Your task to perform on an android device: Open display settings Image 0: 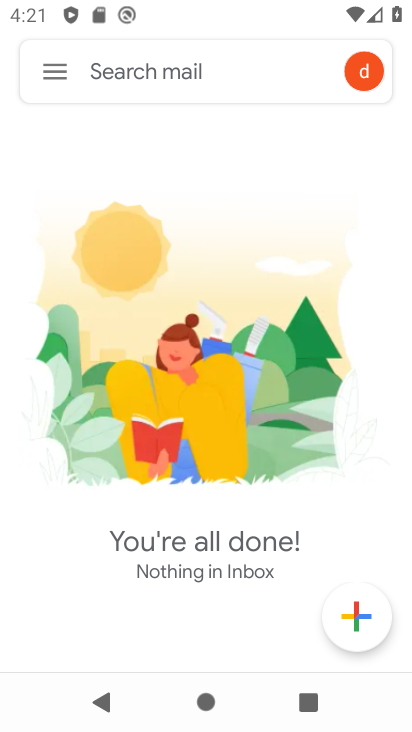
Step 0: press back button
Your task to perform on an android device: Open display settings Image 1: 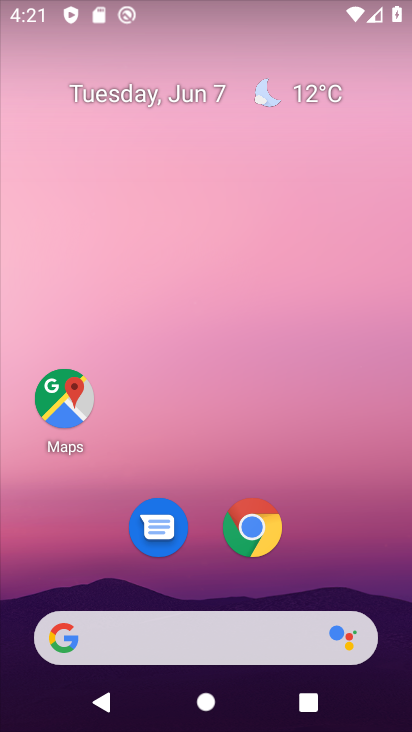
Step 1: drag from (337, 546) to (268, 111)
Your task to perform on an android device: Open display settings Image 2: 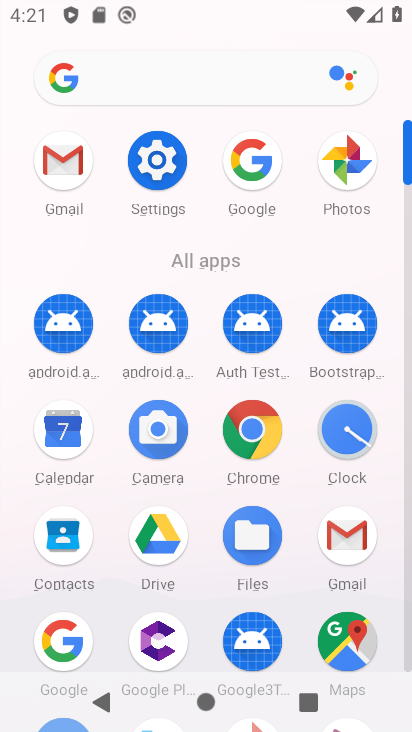
Step 2: click (159, 158)
Your task to perform on an android device: Open display settings Image 3: 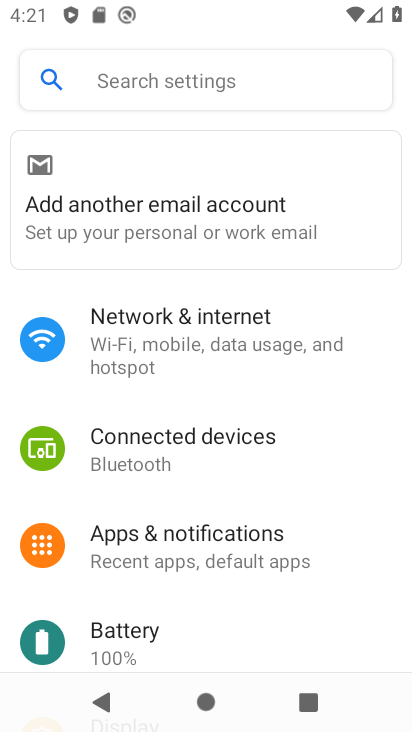
Step 3: drag from (137, 493) to (169, 380)
Your task to perform on an android device: Open display settings Image 4: 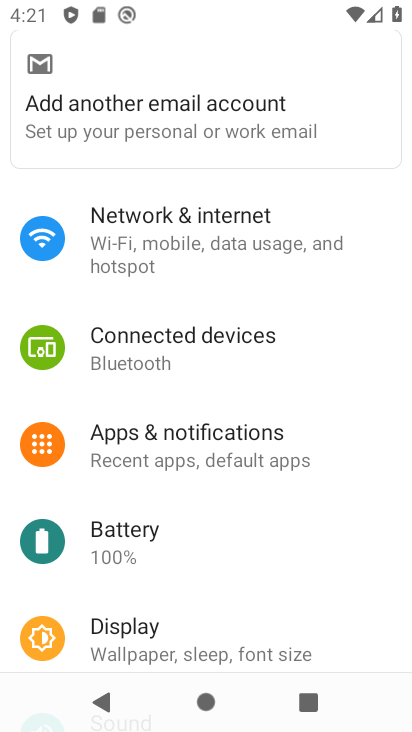
Step 4: drag from (128, 577) to (159, 461)
Your task to perform on an android device: Open display settings Image 5: 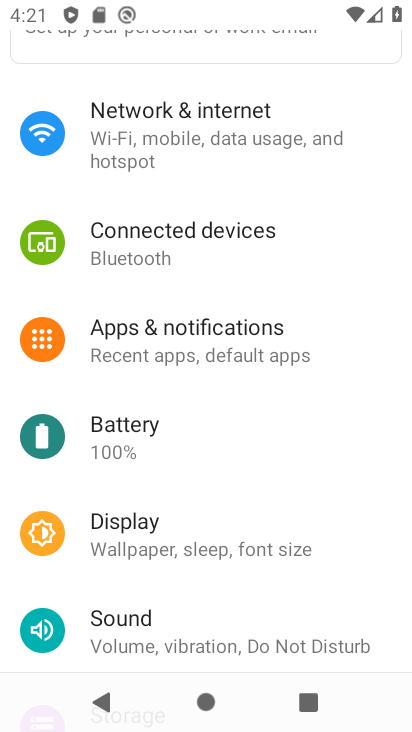
Step 5: click (174, 531)
Your task to perform on an android device: Open display settings Image 6: 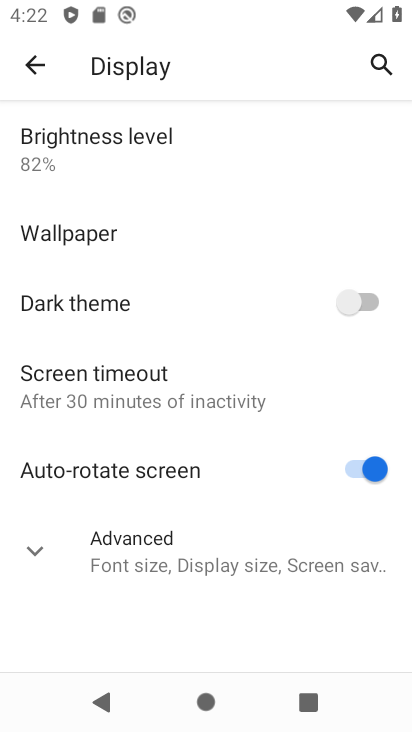
Step 6: task complete